Your task to perform on an android device: Open my contact list Image 0: 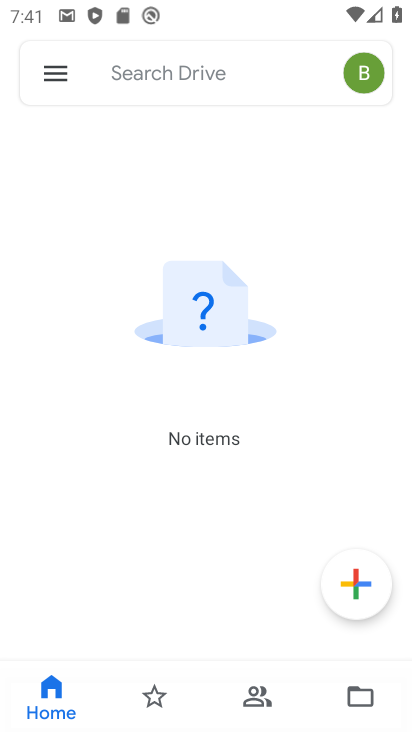
Step 0: press home button
Your task to perform on an android device: Open my contact list Image 1: 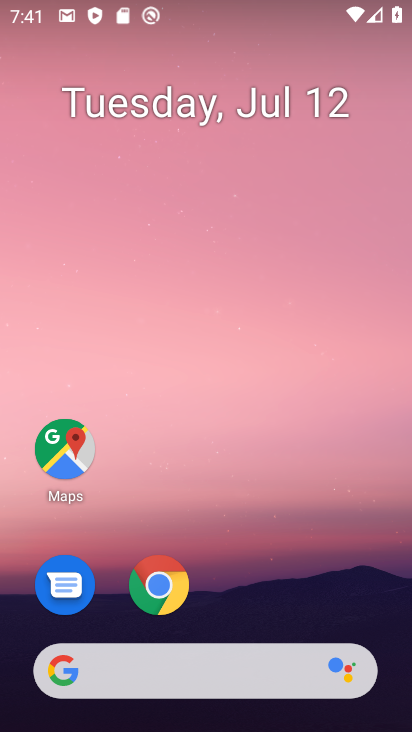
Step 1: drag from (297, 588) to (243, 11)
Your task to perform on an android device: Open my contact list Image 2: 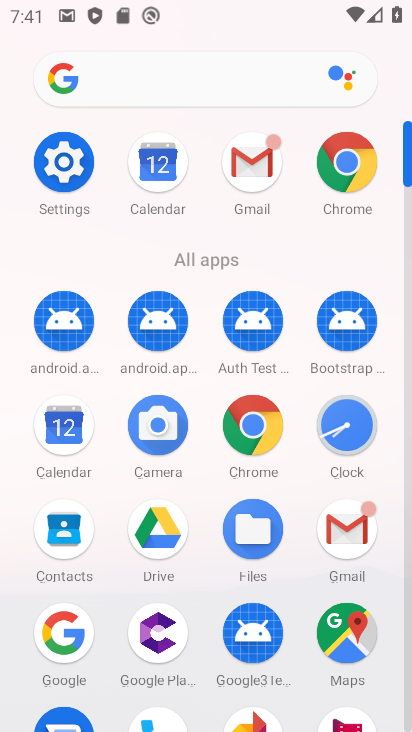
Step 2: click (62, 528)
Your task to perform on an android device: Open my contact list Image 3: 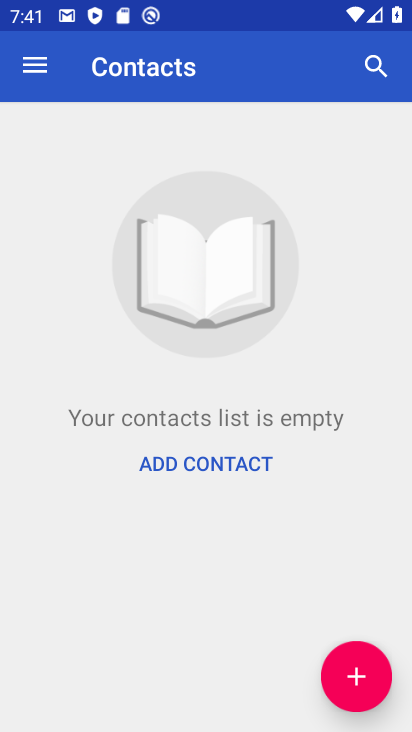
Step 3: task complete